Your task to perform on an android device: change the clock display to digital Image 0: 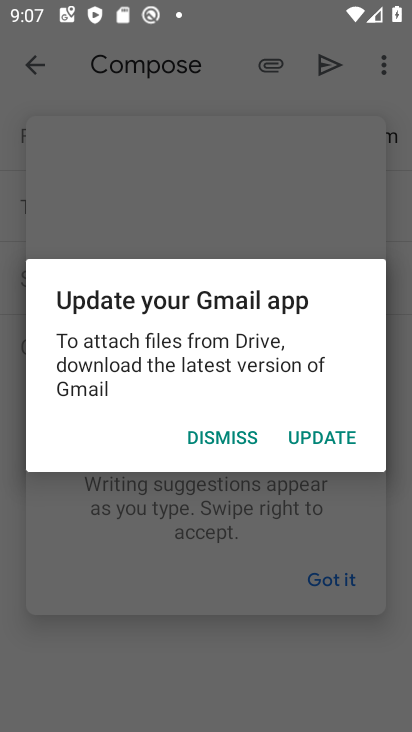
Step 0: press home button
Your task to perform on an android device: change the clock display to digital Image 1: 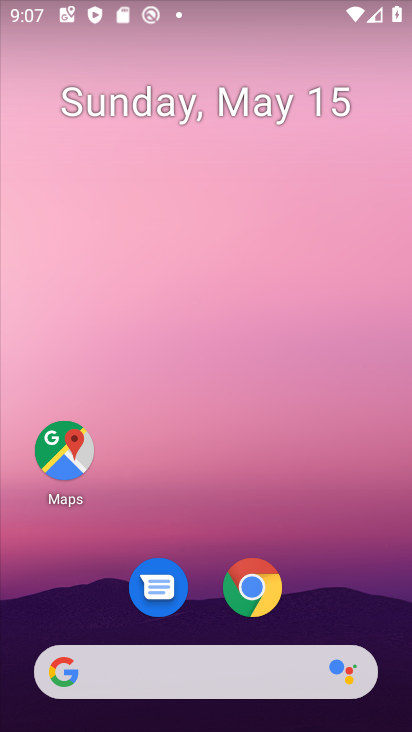
Step 1: drag from (381, 652) to (306, 27)
Your task to perform on an android device: change the clock display to digital Image 2: 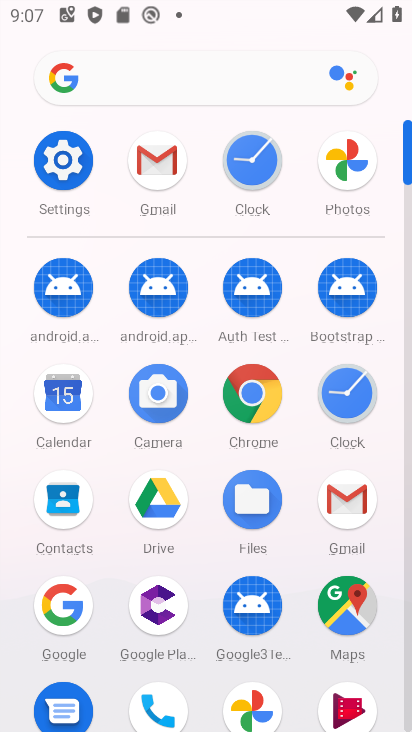
Step 2: click (342, 372)
Your task to perform on an android device: change the clock display to digital Image 3: 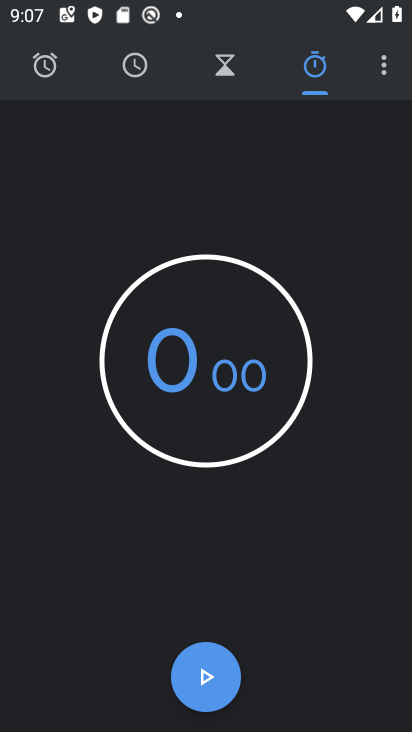
Step 3: click (379, 71)
Your task to perform on an android device: change the clock display to digital Image 4: 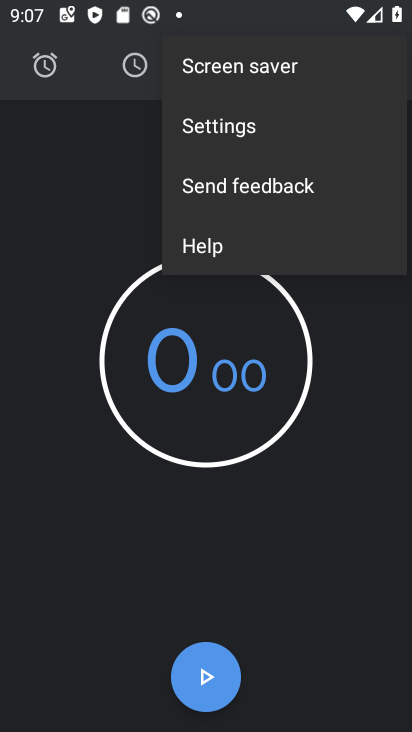
Step 4: click (272, 120)
Your task to perform on an android device: change the clock display to digital Image 5: 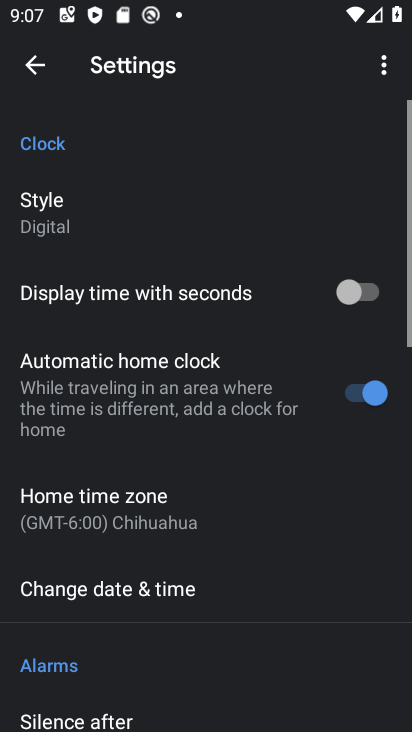
Step 5: click (154, 207)
Your task to perform on an android device: change the clock display to digital Image 6: 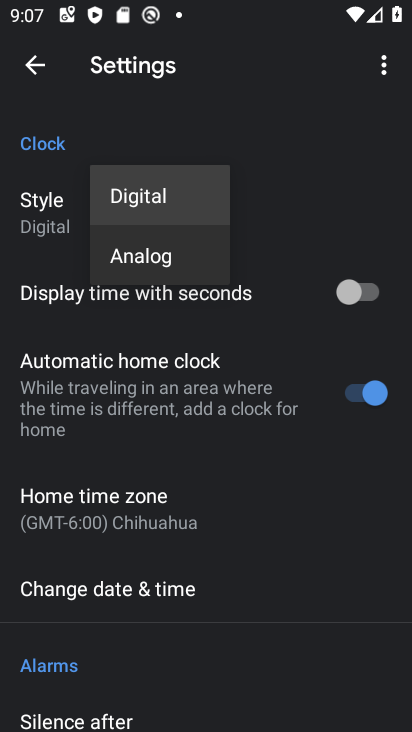
Step 6: click (154, 207)
Your task to perform on an android device: change the clock display to digital Image 7: 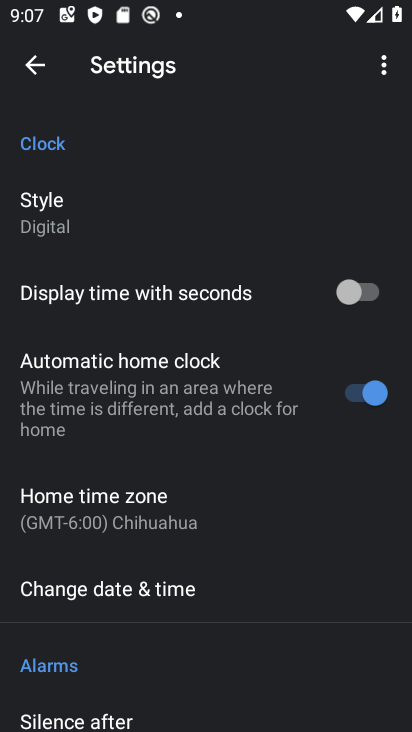
Step 7: task complete